Your task to perform on an android device: Show me popular videos on Youtube Image 0: 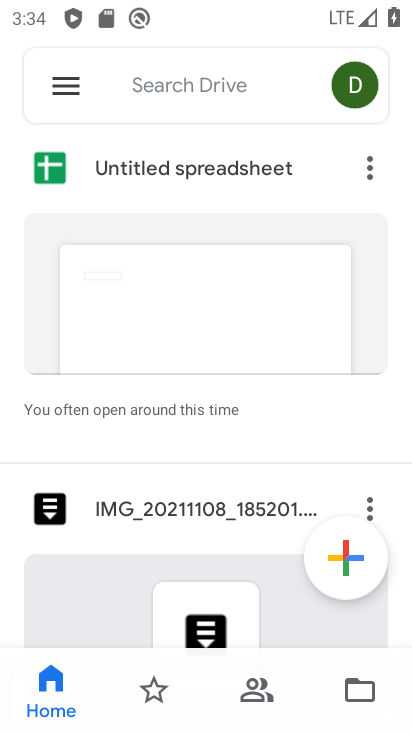
Step 0: press home button
Your task to perform on an android device: Show me popular videos on Youtube Image 1: 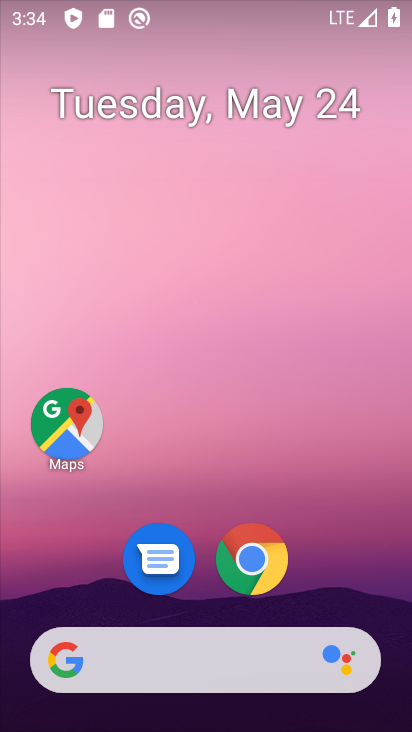
Step 1: drag from (337, 550) to (260, 209)
Your task to perform on an android device: Show me popular videos on Youtube Image 2: 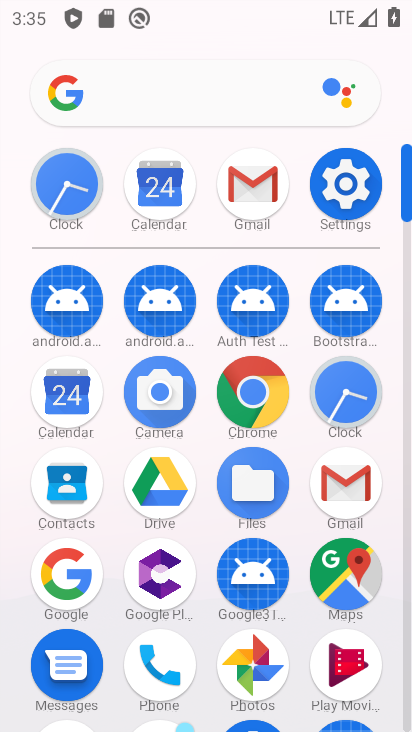
Step 2: drag from (206, 533) to (202, 310)
Your task to perform on an android device: Show me popular videos on Youtube Image 3: 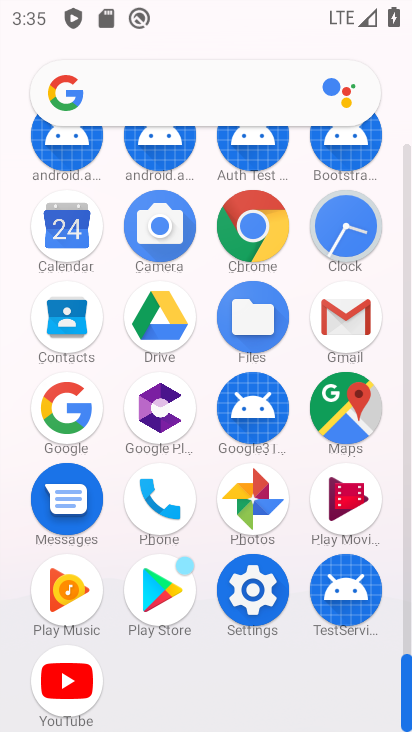
Step 3: click (66, 685)
Your task to perform on an android device: Show me popular videos on Youtube Image 4: 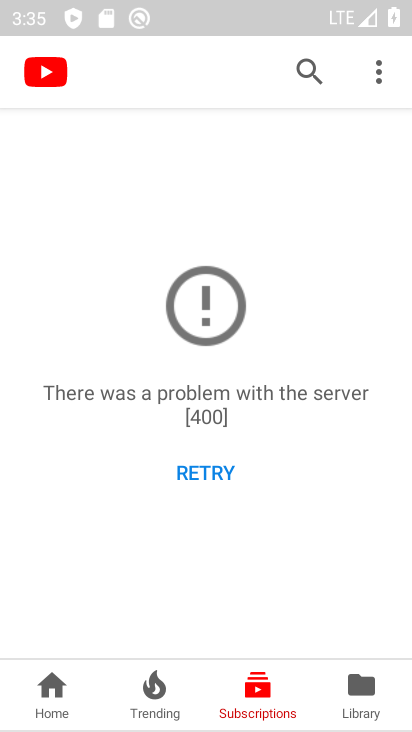
Step 4: click (221, 486)
Your task to perform on an android device: Show me popular videos on Youtube Image 5: 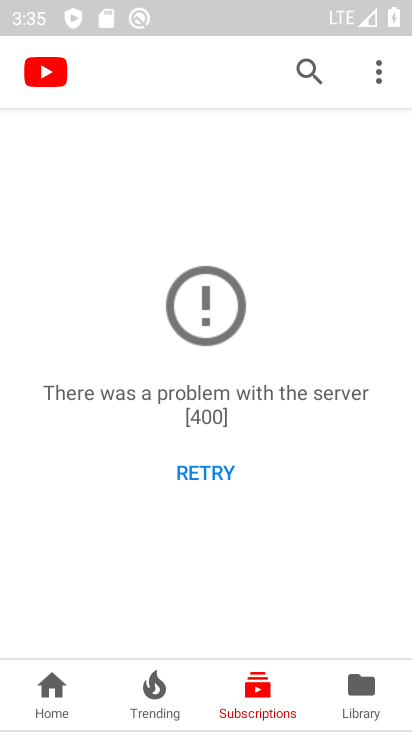
Step 5: click (221, 485)
Your task to perform on an android device: Show me popular videos on Youtube Image 6: 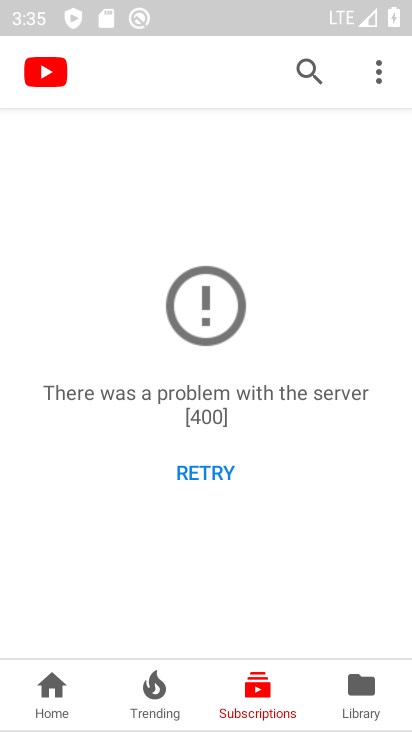
Step 6: click (221, 484)
Your task to perform on an android device: Show me popular videos on Youtube Image 7: 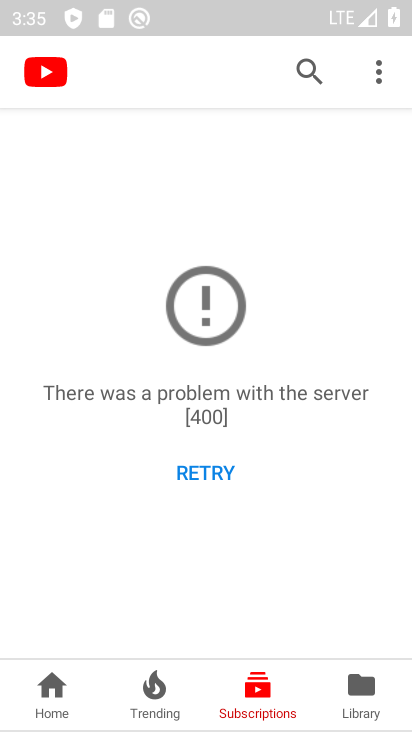
Step 7: click (221, 483)
Your task to perform on an android device: Show me popular videos on Youtube Image 8: 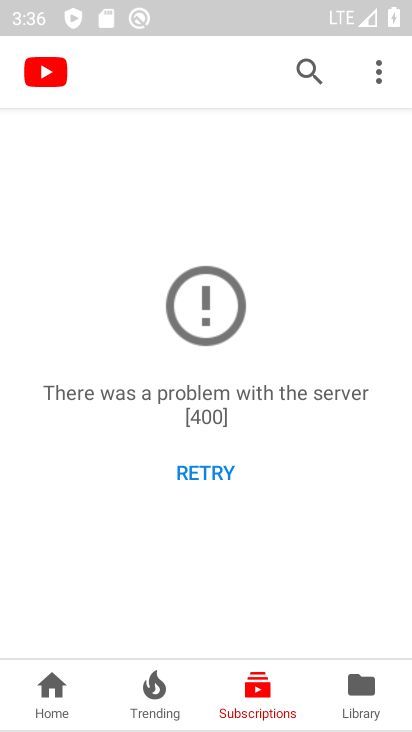
Step 8: task complete